Your task to perform on an android device: Go to network settings Image 0: 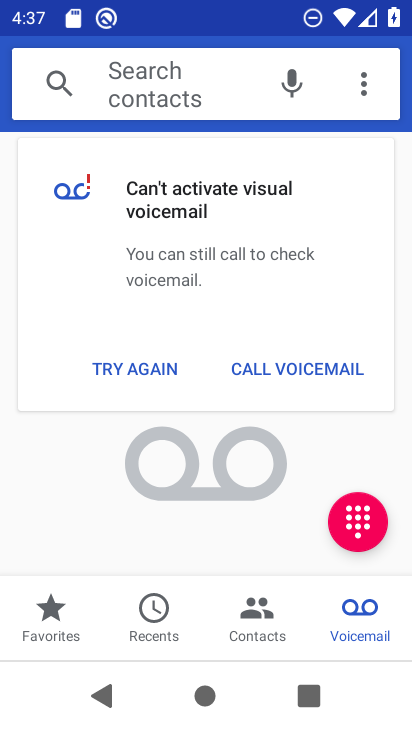
Step 0: press back button
Your task to perform on an android device: Go to network settings Image 1: 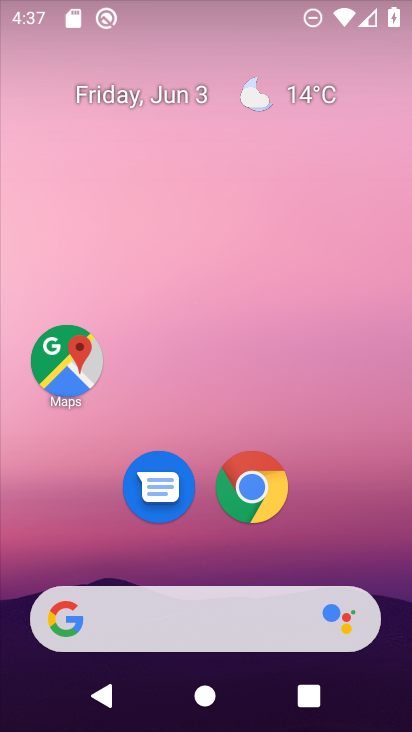
Step 1: drag from (217, 554) to (265, 34)
Your task to perform on an android device: Go to network settings Image 2: 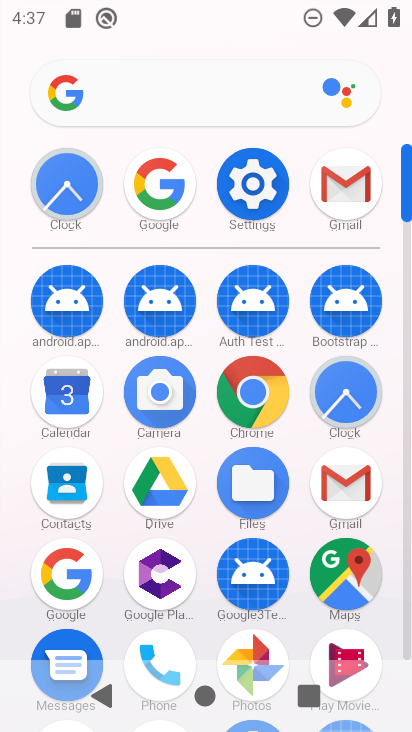
Step 2: click (246, 189)
Your task to perform on an android device: Go to network settings Image 3: 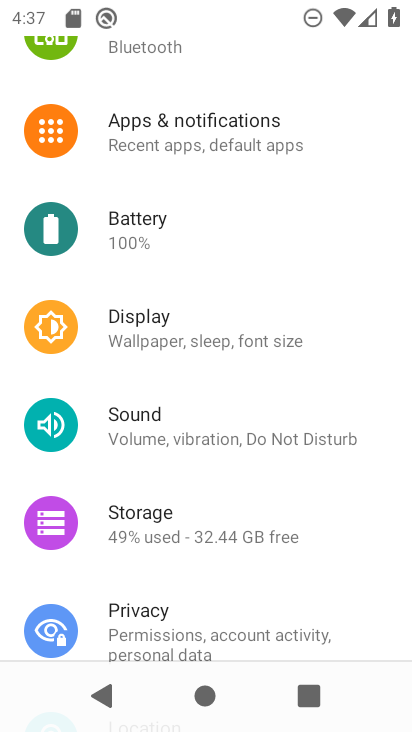
Step 3: drag from (208, 229) to (200, 583)
Your task to perform on an android device: Go to network settings Image 4: 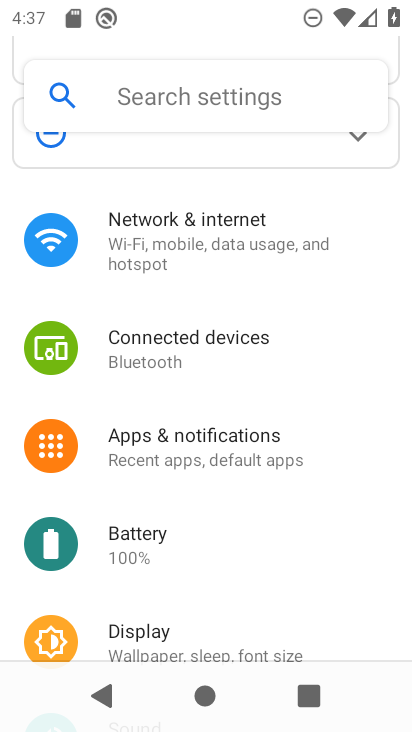
Step 4: click (161, 222)
Your task to perform on an android device: Go to network settings Image 5: 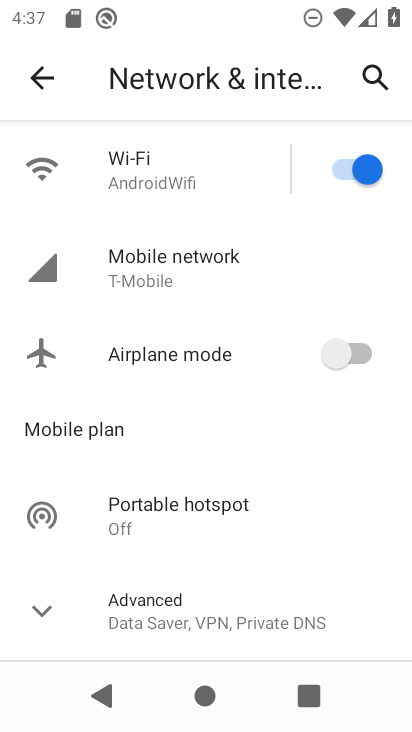
Step 5: task complete